Your task to perform on an android device: turn off location Image 0: 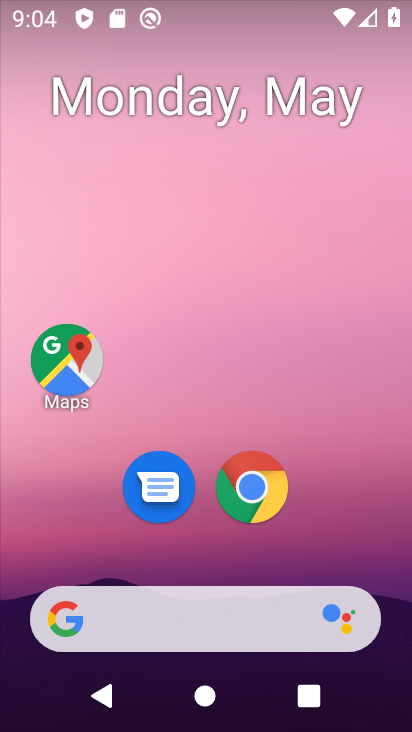
Step 0: drag from (217, 555) to (180, 59)
Your task to perform on an android device: turn off location Image 1: 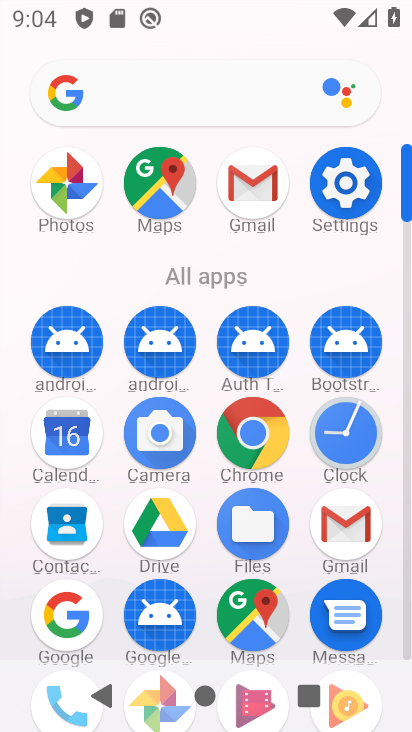
Step 1: click (345, 180)
Your task to perform on an android device: turn off location Image 2: 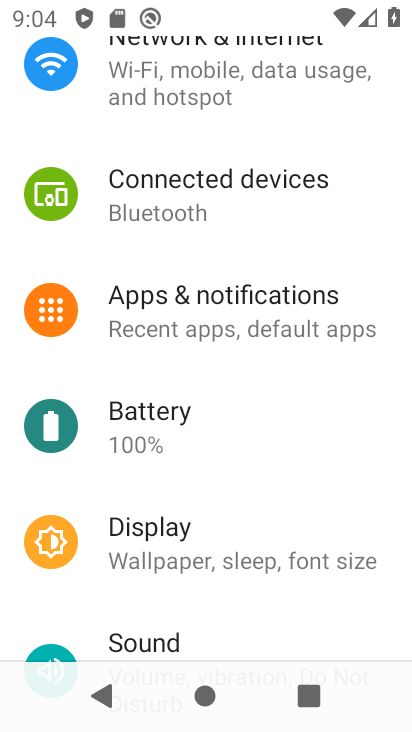
Step 2: drag from (251, 579) to (269, 101)
Your task to perform on an android device: turn off location Image 3: 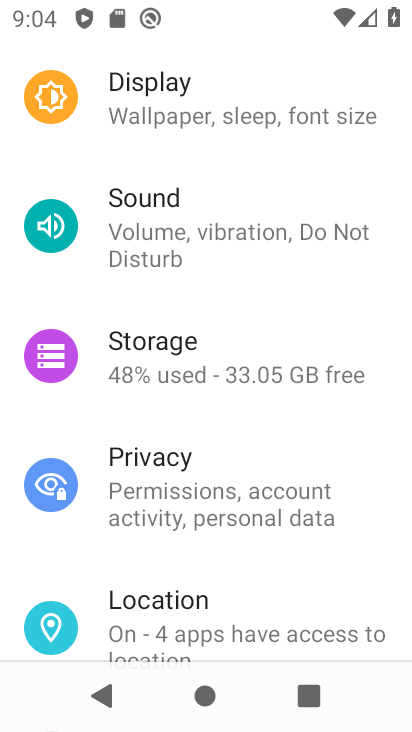
Step 3: click (173, 608)
Your task to perform on an android device: turn off location Image 4: 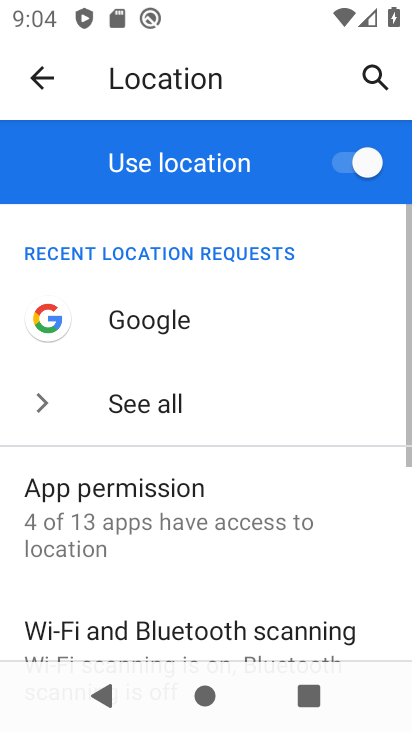
Step 4: click (366, 166)
Your task to perform on an android device: turn off location Image 5: 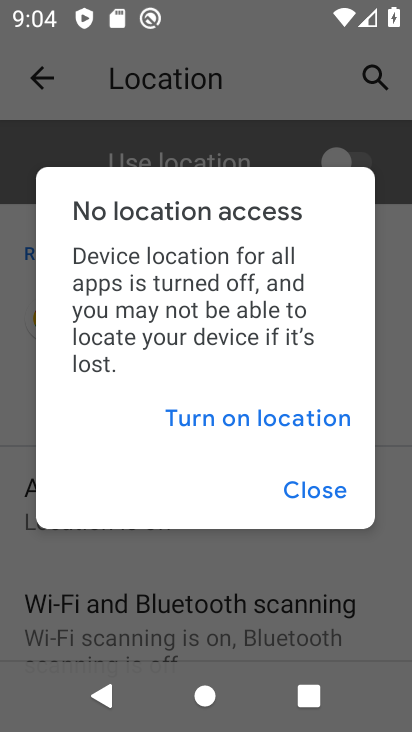
Step 5: click (317, 488)
Your task to perform on an android device: turn off location Image 6: 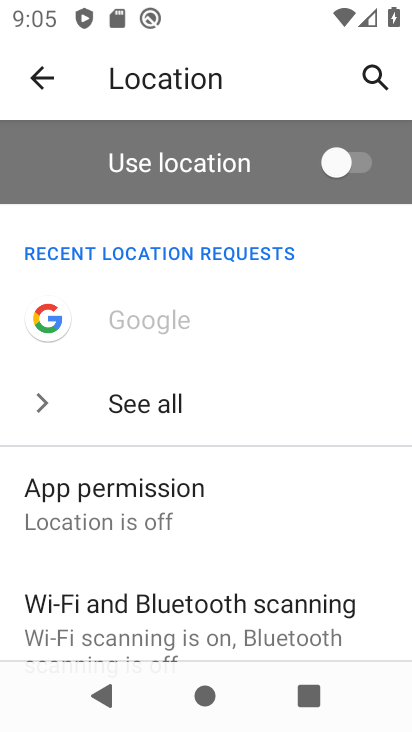
Step 6: task complete